Your task to perform on an android device: turn on airplane mode Image 0: 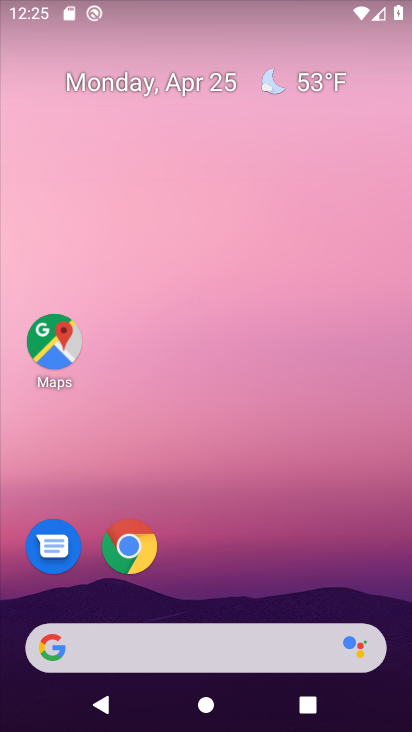
Step 0: drag from (234, 9) to (280, 316)
Your task to perform on an android device: turn on airplane mode Image 1: 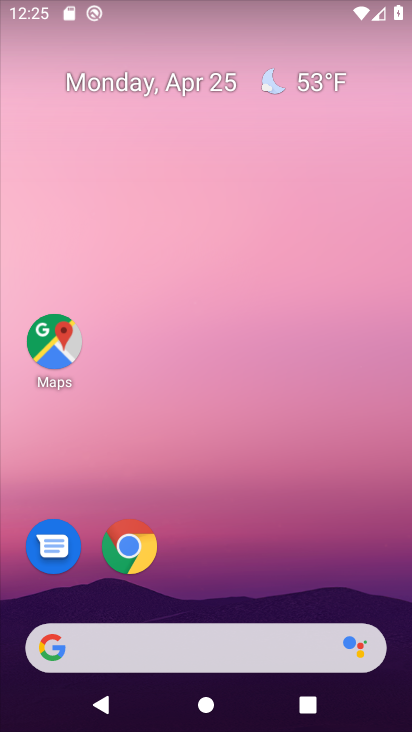
Step 1: drag from (264, 576) to (239, 474)
Your task to perform on an android device: turn on airplane mode Image 2: 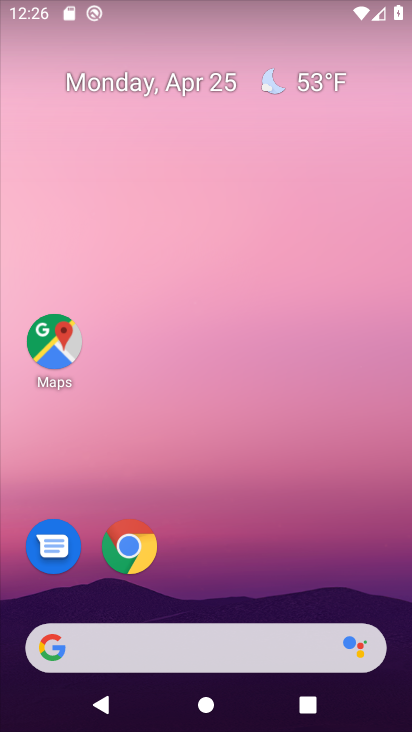
Step 2: drag from (288, 5) to (258, 683)
Your task to perform on an android device: turn on airplane mode Image 3: 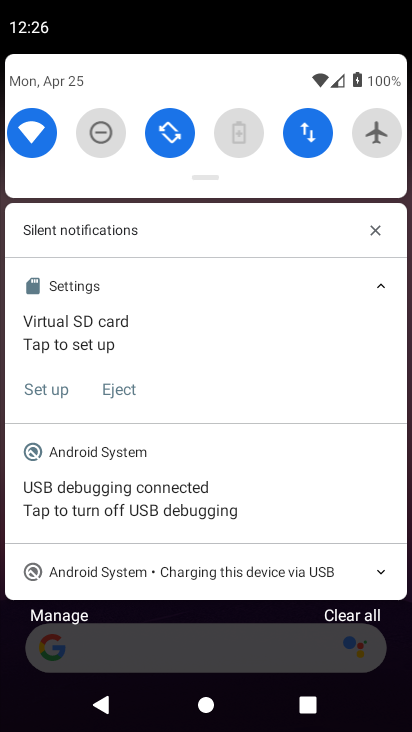
Step 3: click (381, 131)
Your task to perform on an android device: turn on airplane mode Image 4: 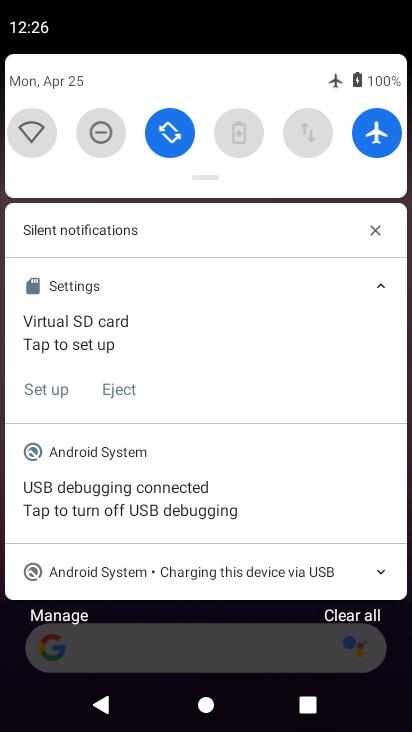
Step 4: task complete